Your task to perform on an android device: What is the recent news? Image 0: 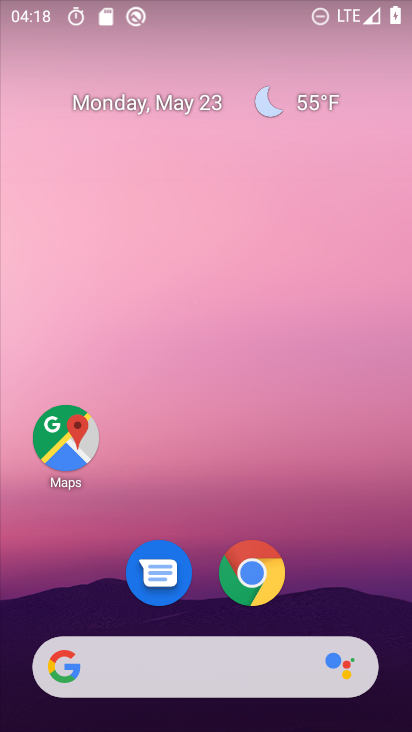
Step 0: click (169, 666)
Your task to perform on an android device: What is the recent news? Image 1: 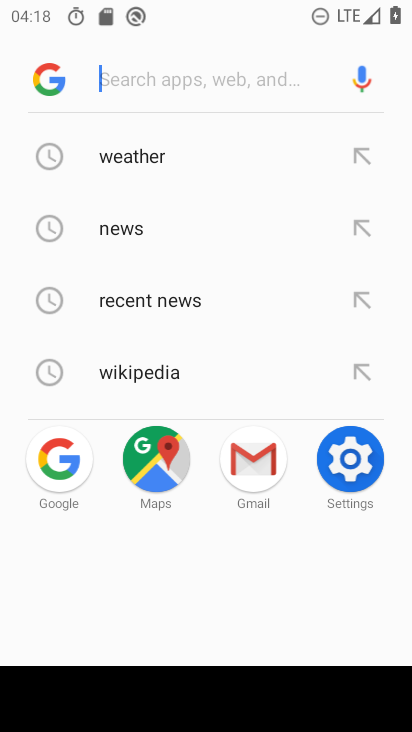
Step 1: click (168, 305)
Your task to perform on an android device: What is the recent news? Image 2: 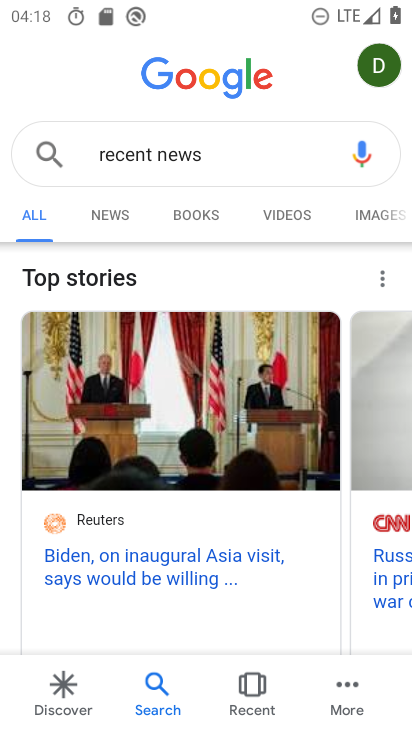
Step 2: click (118, 212)
Your task to perform on an android device: What is the recent news? Image 3: 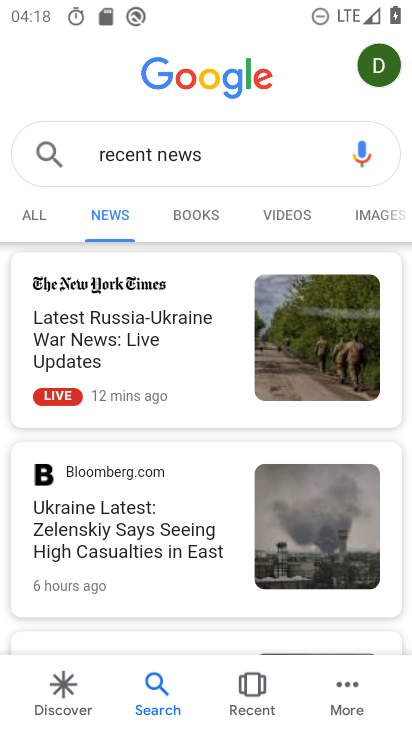
Step 3: task complete